Your task to perform on an android device: Open settings Image 0: 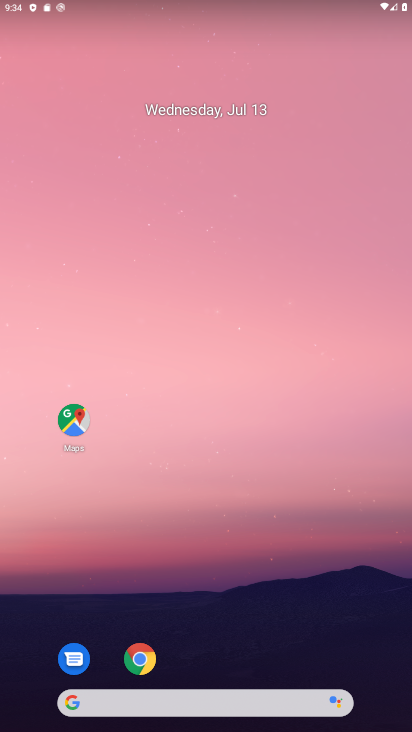
Step 0: drag from (330, 616) to (242, 193)
Your task to perform on an android device: Open settings Image 1: 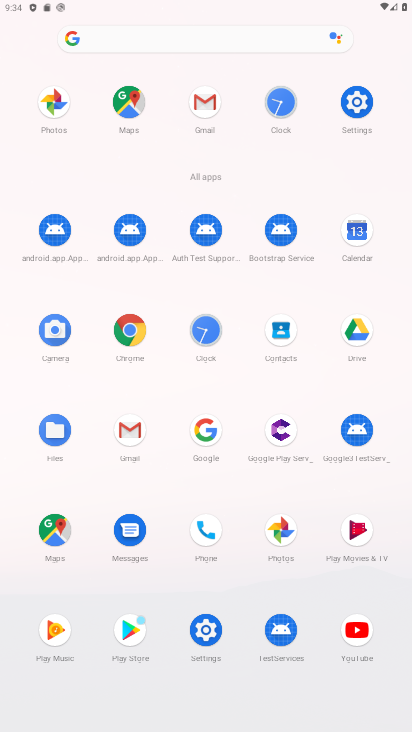
Step 1: click (359, 100)
Your task to perform on an android device: Open settings Image 2: 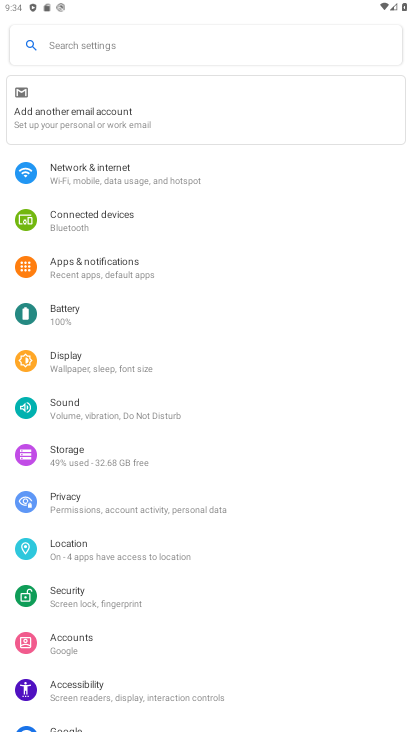
Step 2: task complete